Your task to perform on an android device: Clear the cart on newegg. Image 0: 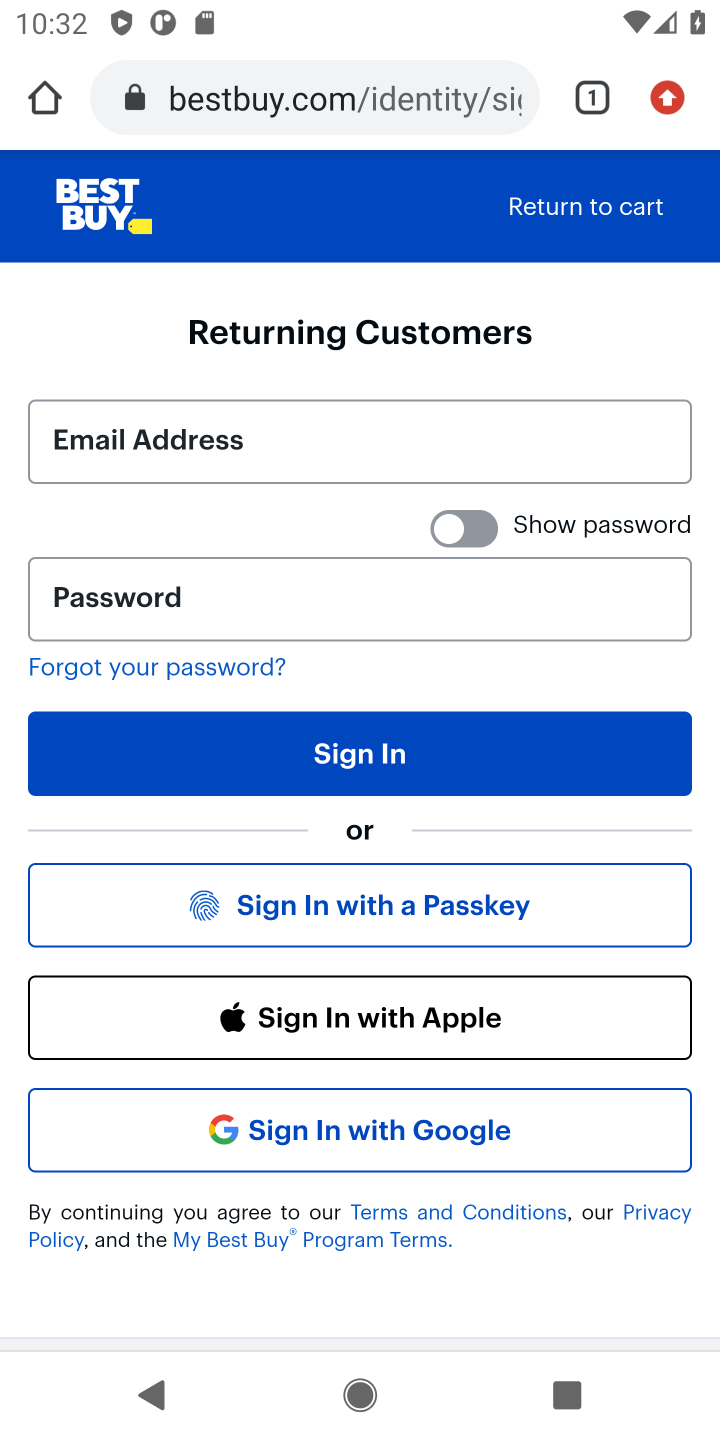
Step 0: click (462, 101)
Your task to perform on an android device: Clear the cart on newegg. Image 1: 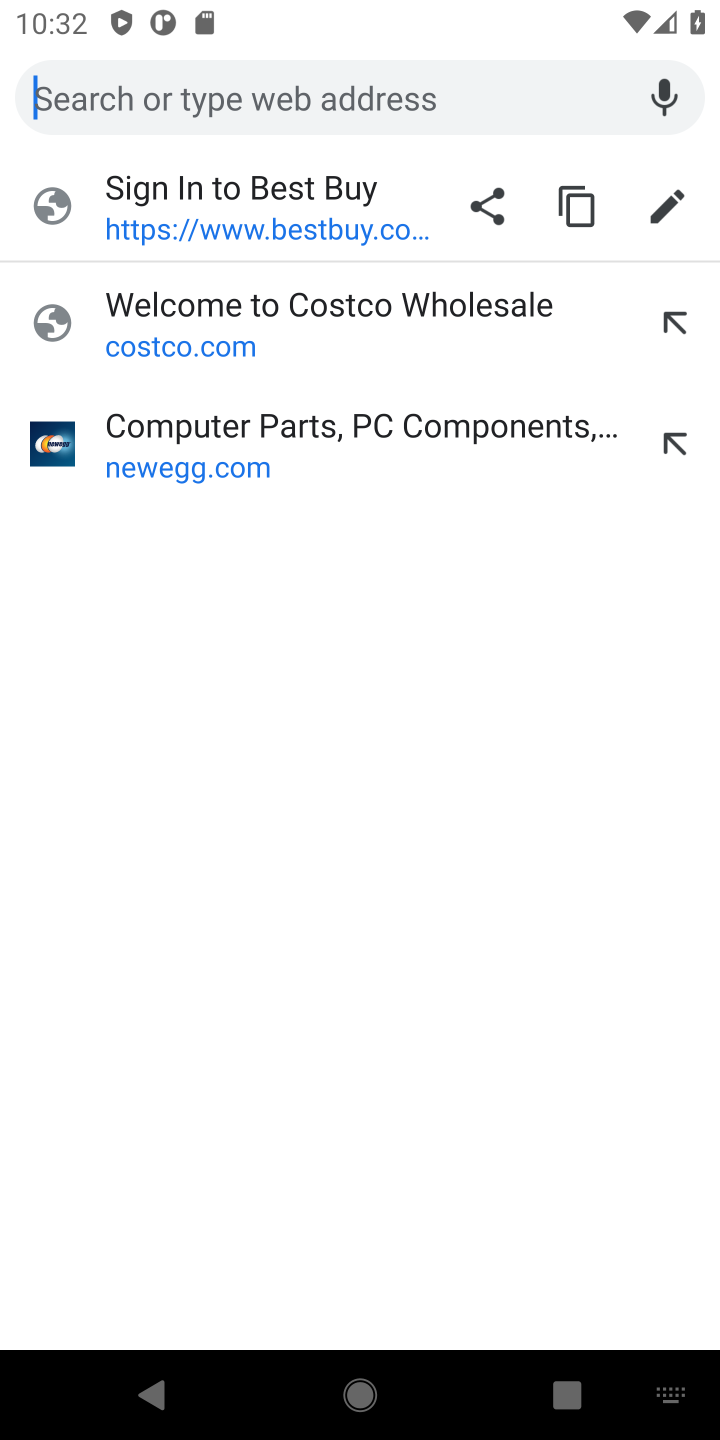
Step 1: click (376, 421)
Your task to perform on an android device: Clear the cart on newegg. Image 2: 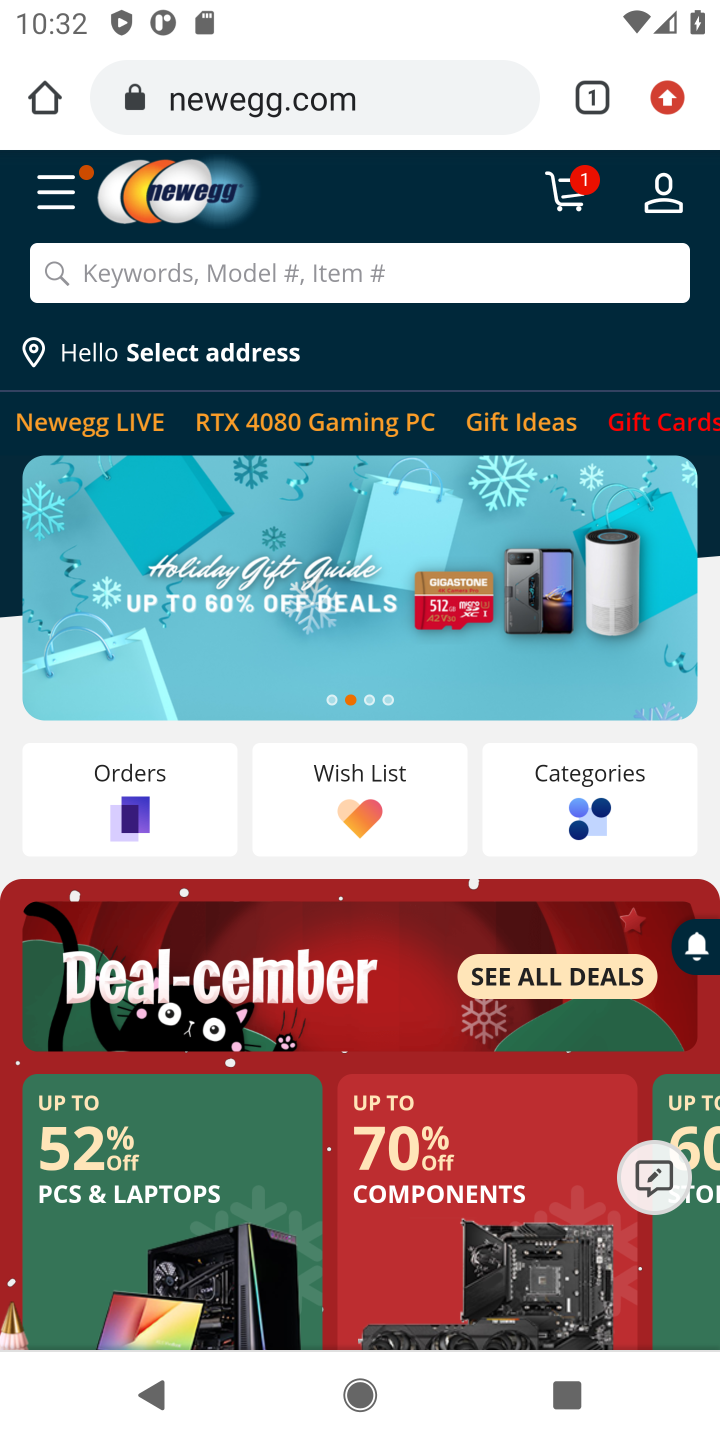
Step 2: click (575, 195)
Your task to perform on an android device: Clear the cart on newegg. Image 3: 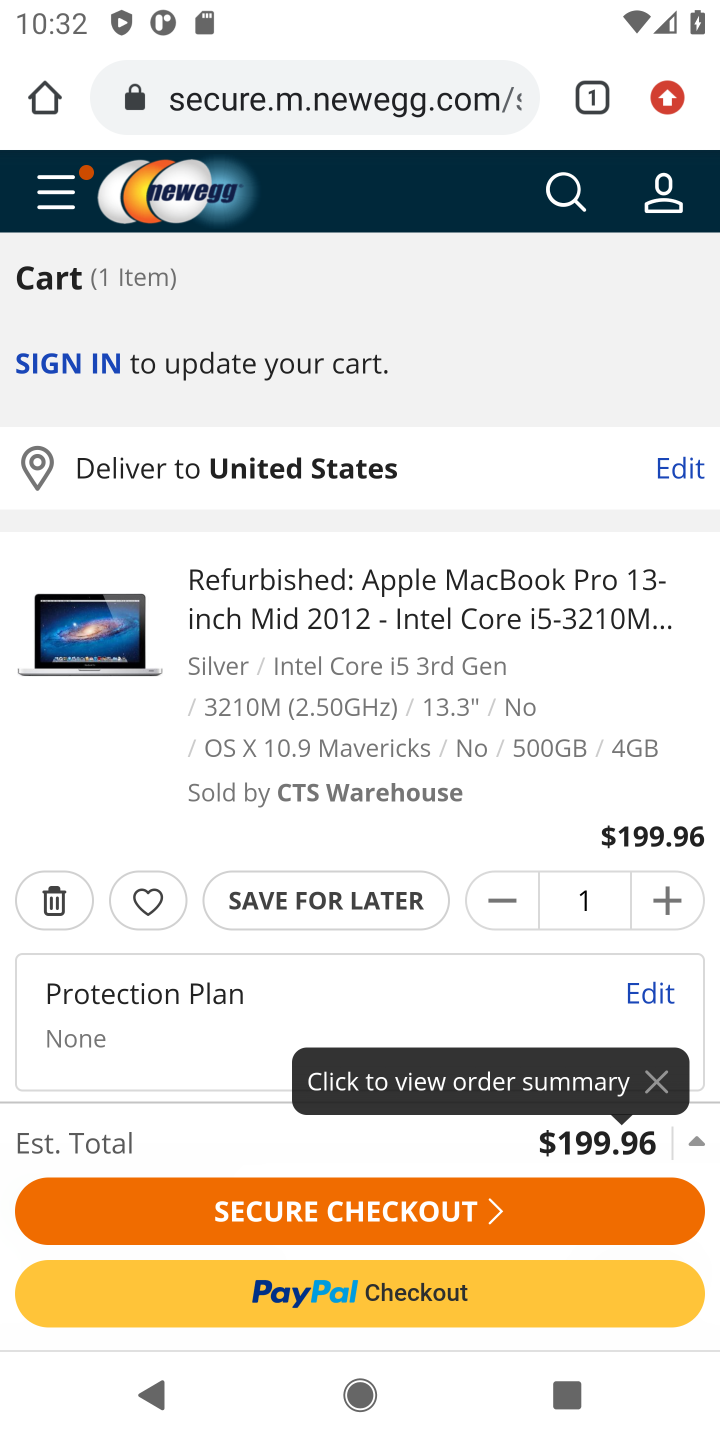
Step 3: click (41, 884)
Your task to perform on an android device: Clear the cart on newegg. Image 4: 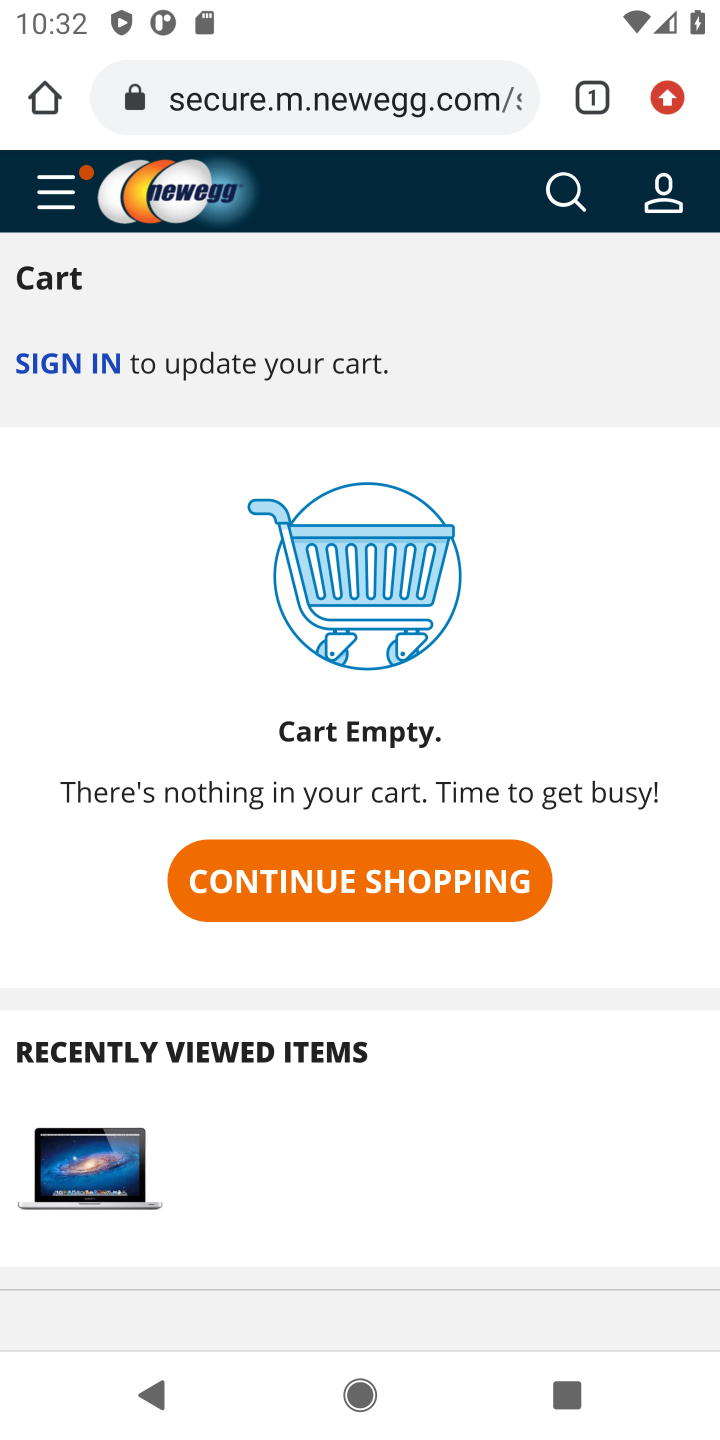
Step 4: task complete